Your task to perform on an android device: empty trash in the gmail app Image 0: 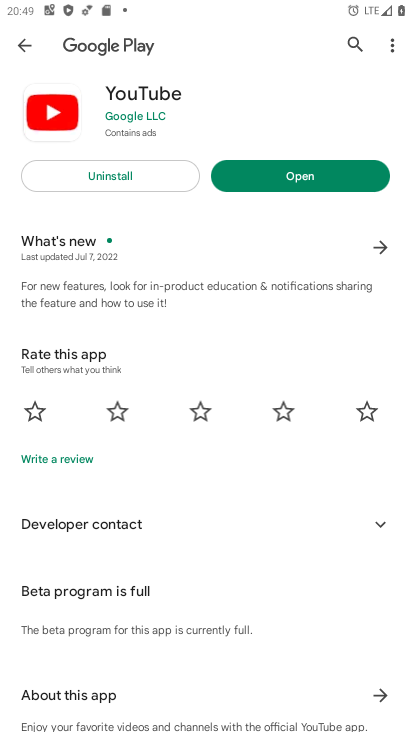
Step 0: press home button
Your task to perform on an android device: empty trash in the gmail app Image 1: 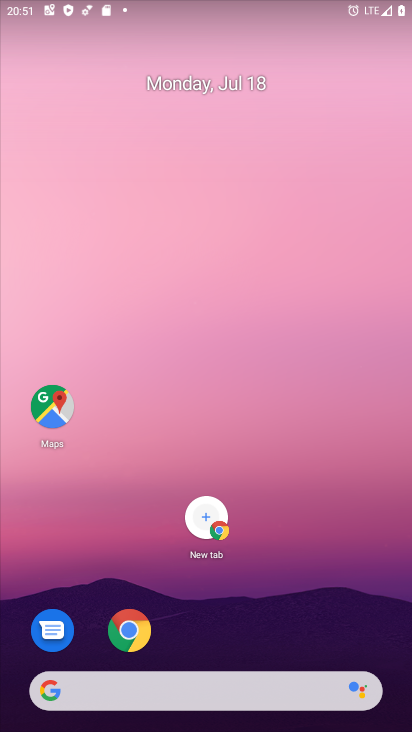
Step 1: click (263, 283)
Your task to perform on an android device: empty trash in the gmail app Image 2: 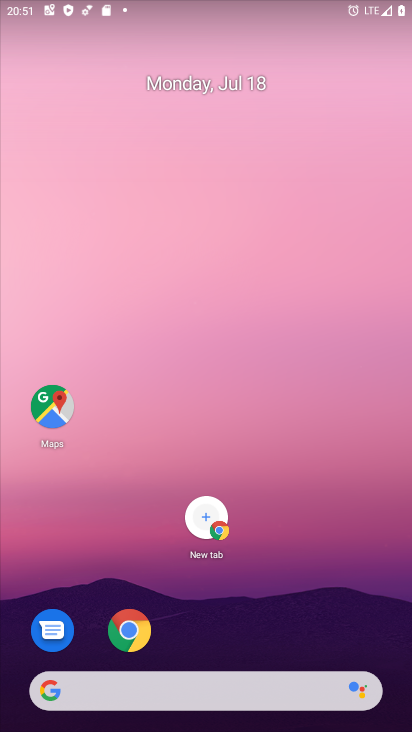
Step 2: drag from (227, 540) to (246, 167)
Your task to perform on an android device: empty trash in the gmail app Image 3: 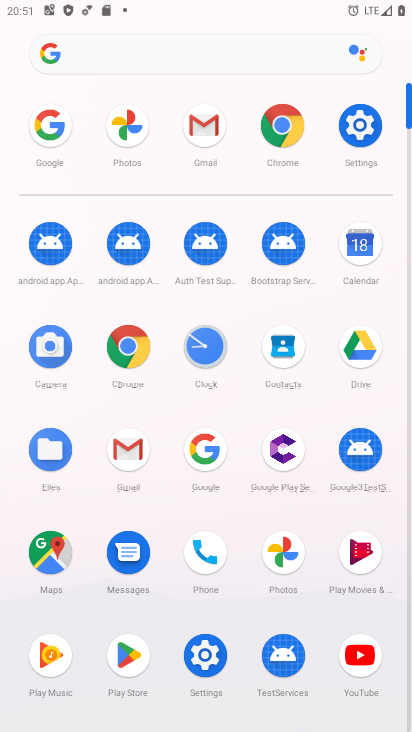
Step 3: click (118, 445)
Your task to perform on an android device: empty trash in the gmail app Image 4: 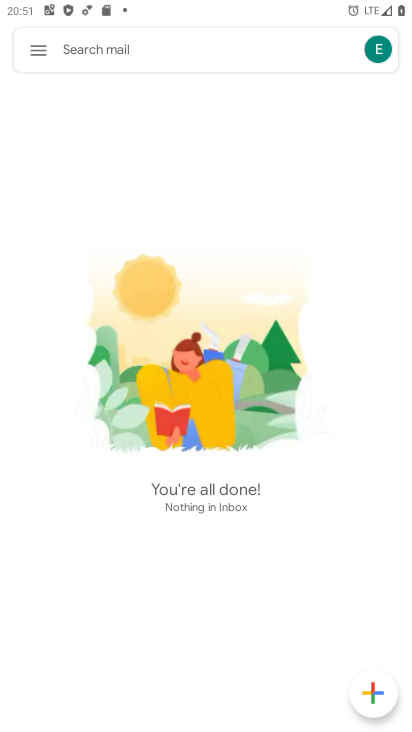
Step 4: click (36, 50)
Your task to perform on an android device: empty trash in the gmail app Image 5: 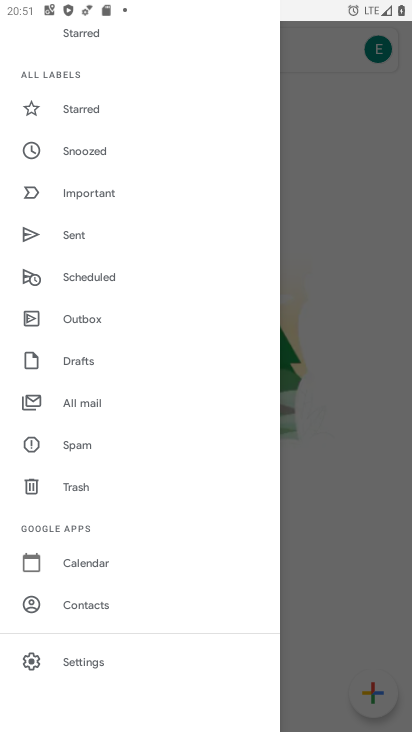
Step 5: click (68, 481)
Your task to perform on an android device: empty trash in the gmail app Image 6: 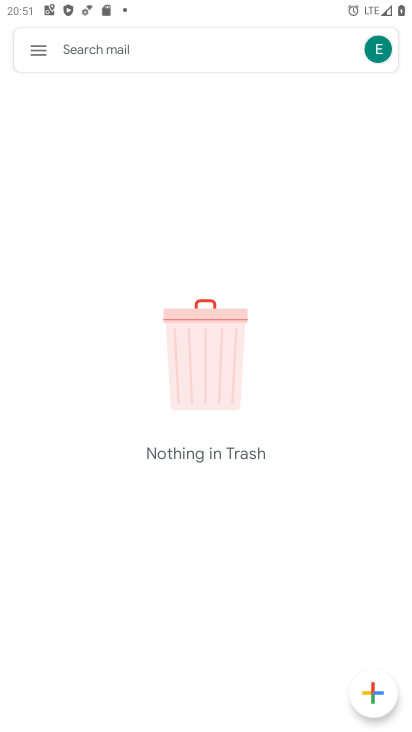
Step 6: task complete